Your task to perform on an android device: Search for vegetarian restaurants on Maps Image 0: 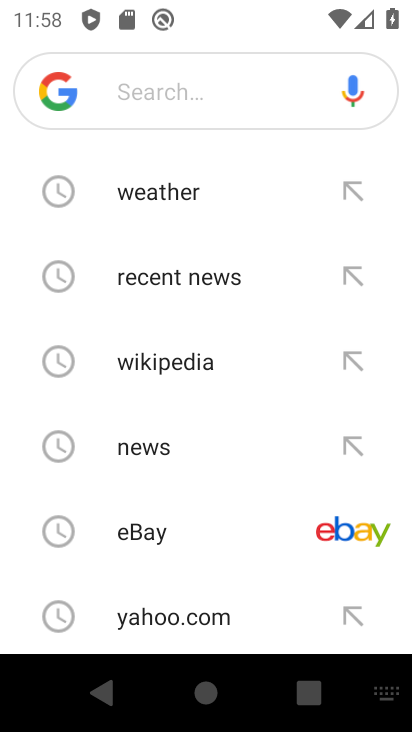
Step 0: press back button
Your task to perform on an android device: Search for vegetarian restaurants on Maps Image 1: 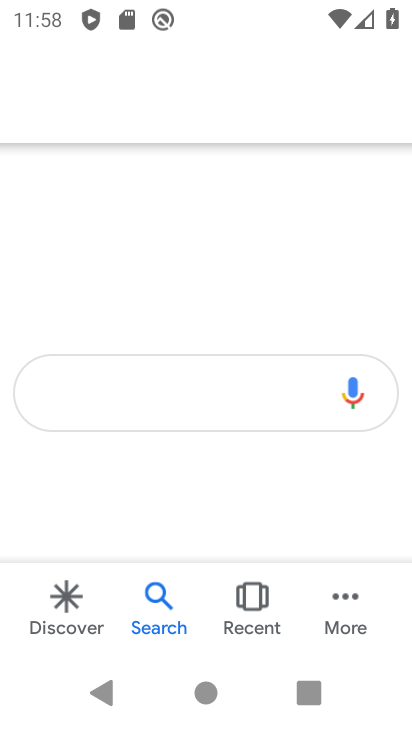
Step 1: press back button
Your task to perform on an android device: Search for vegetarian restaurants on Maps Image 2: 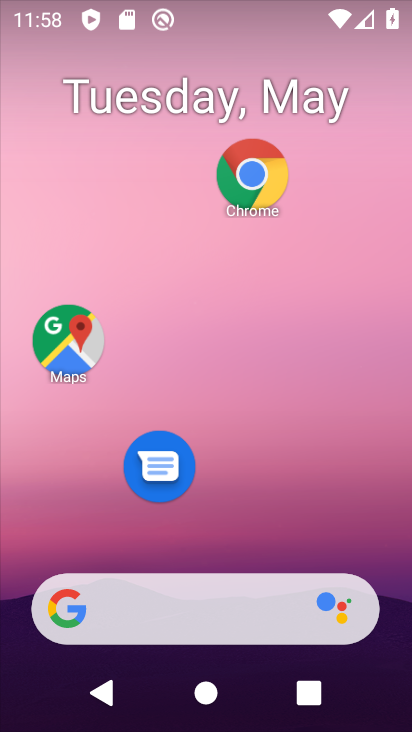
Step 2: click (63, 358)
Your task to perform on an android device: Search for vegetarian restaurants on Maps Image 3: 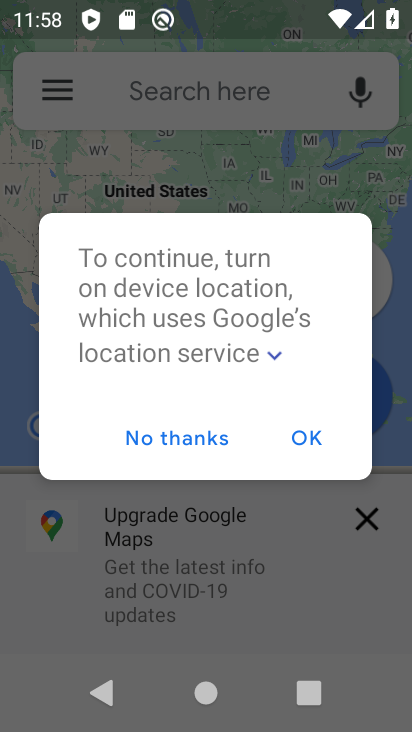
Step 3: click (311, 438)
Your task to perform on an android device: Search for vegetarian restaurants on Maps Image 4: 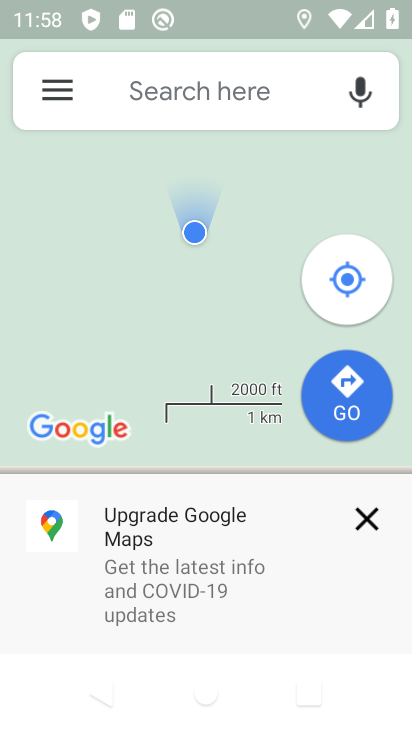
Step 4: click (203, 79)
Your task to perform on an android device: Search for vegetarian restaurants on Maps Image 5: 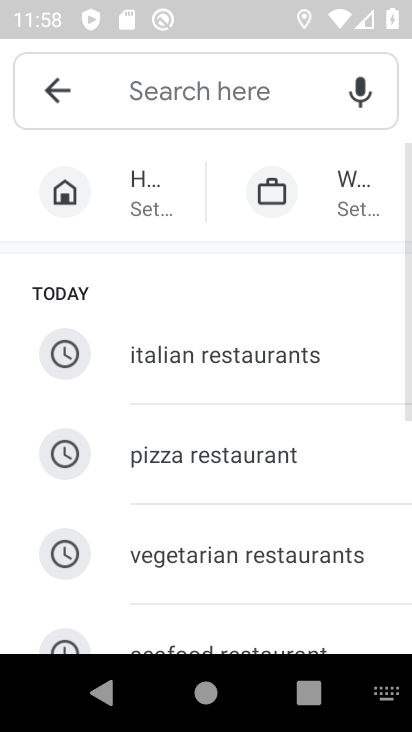
Step 5: click (179, 543)
Your task to perform on an android device: Search for vegetarian restaurants on Maps Image 6: 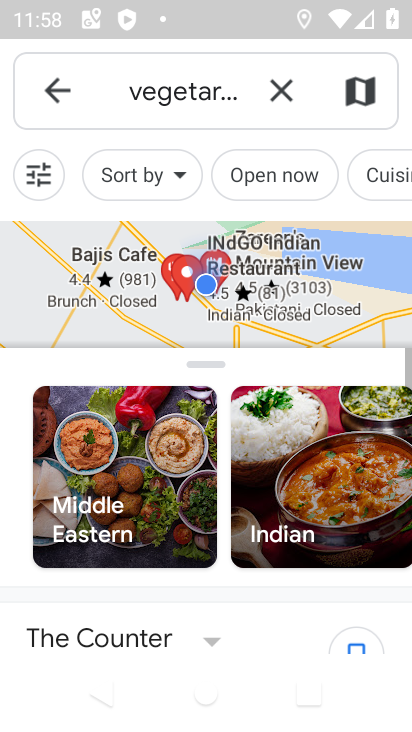
Step 6: task complete